Your task to perform on an android device: Search for the best rated 4K TV on Best Buy. Image 0: 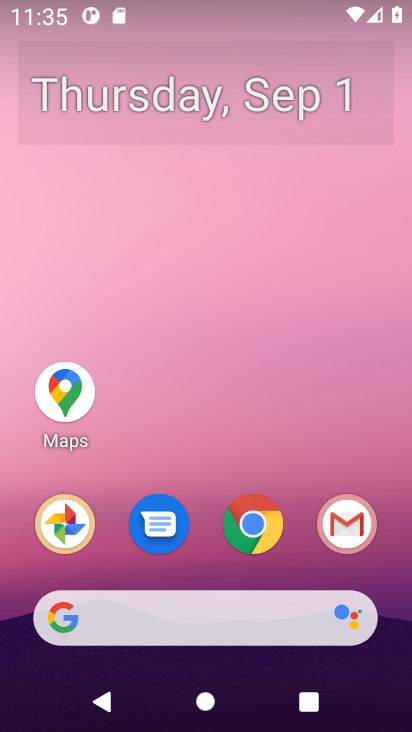
Step 0: click (288, 616)
Your task to perform on an android device: Search for the best rated 4K TV on Best Buy. Image 1: 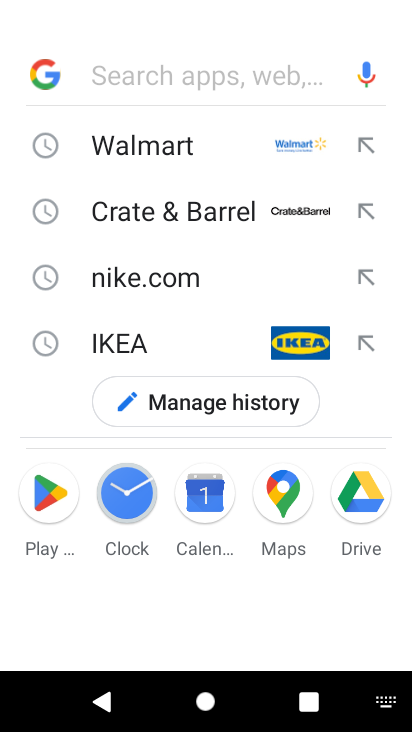
Step 1: press enter
Your task to perform on an android device: Search for the best rated 4K TV on Best Buy. Image 2: 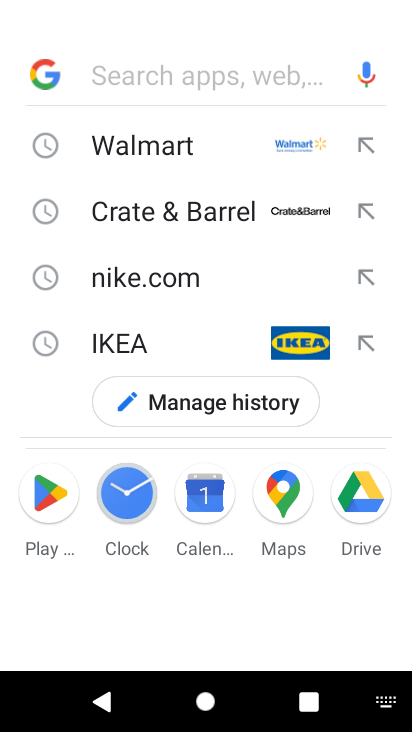
Step 2: type "best buy"
Your task to perform on an android device: Search for the best rated 4K TV on Best Buy. Image 3: 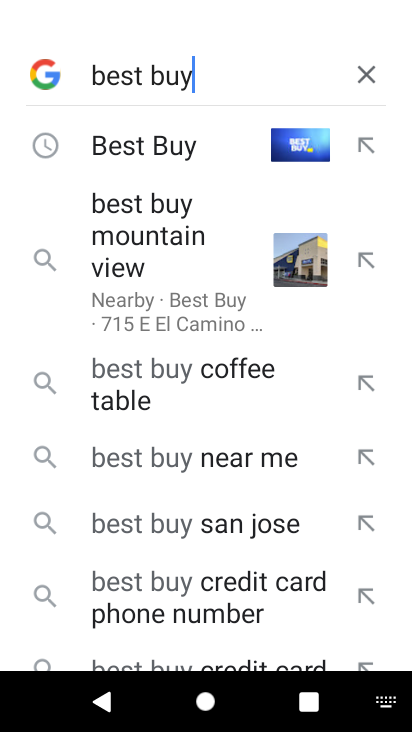
Step 3: click (153, 147)
Your task to perform on an android device: Search for the best rated 4K TV on Best Buy. Image 4: 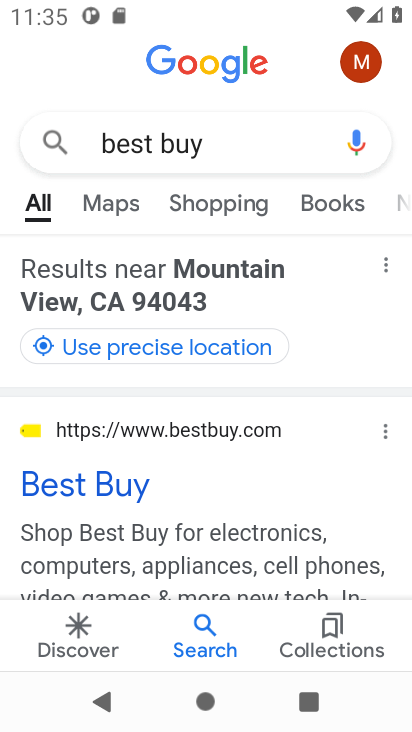
Step 4: click (121, 481)
Your task to perform on an android device: Search for the best rated 4K TV on Best Buy. Image 5: 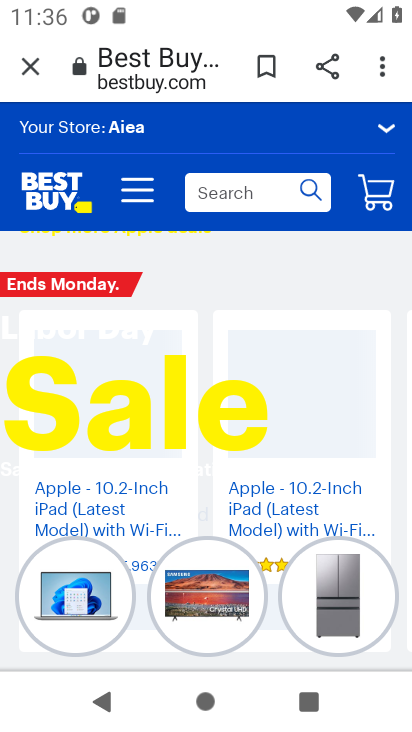
Step 5: click (248, 192)
Your task to perform on an android device: Search for the best rated 4K TV on Best Buy. Image 6: 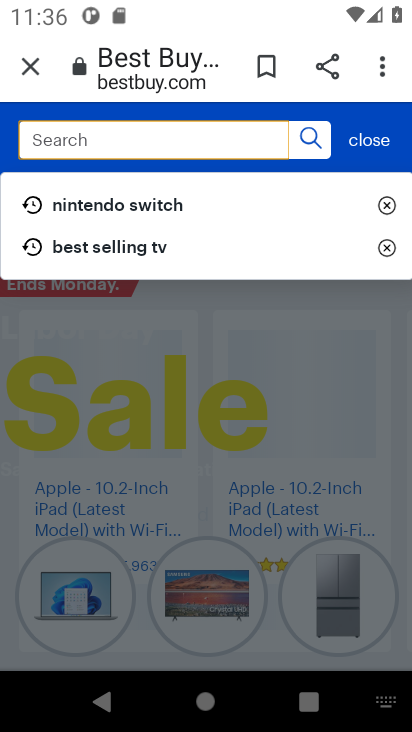
Step 6: press enter
Your task to perform on an android device: Search for the best rated 4K TV on Best Buy. Image 7: 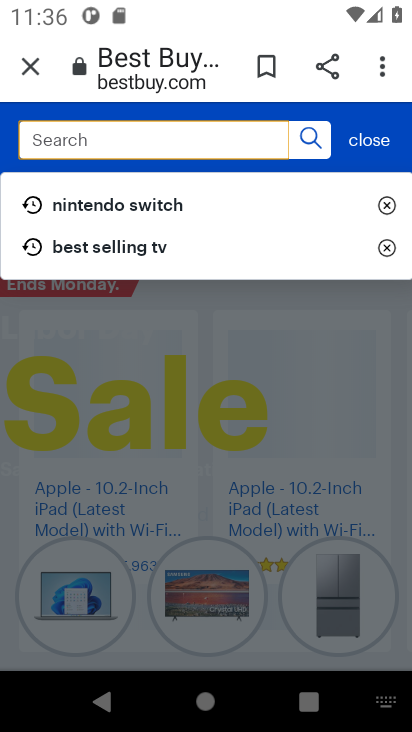
Step 7: type "best rated 4K TV"
Your task to perform on an android device: Search for the best rated 4K TV on Best Buy. Image 8: 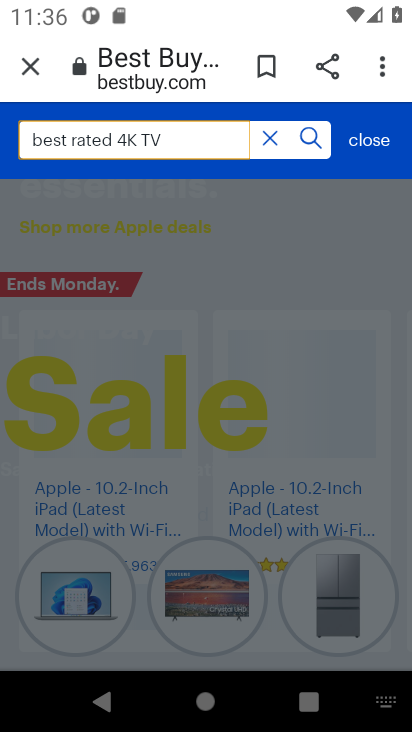
Step 8: click (312, 141)
Your task to perform on an android device: Search for the best rated 4K TV on Best Buy. Image 9: 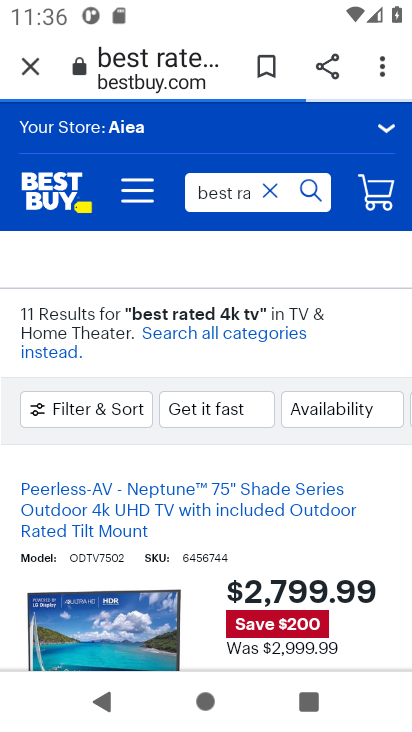
Step 9: task complete